Your task to perform on an android device: Open location settings Image 0: 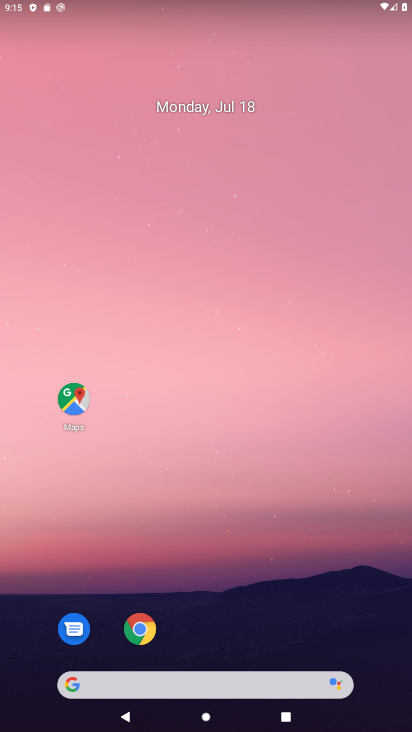
Step 0: drag from (211, 663) to (193, 30)
Your task to perform on an android device: Open location settings Image 1: 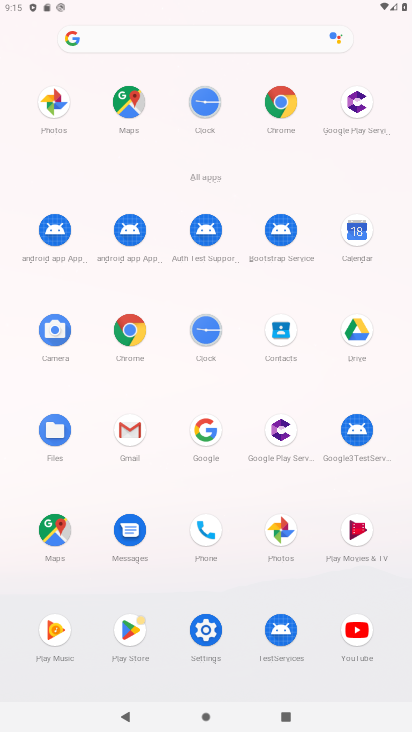
Step 1: click (213, 627)
Your task to perform on an android device: Open location settings Image 2: 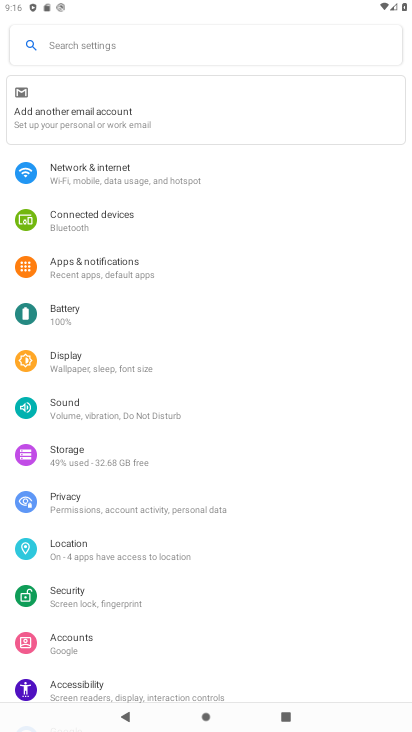
Step 2: click (90, 553)
Your task to perform on an android device: Open location settings Image 3: 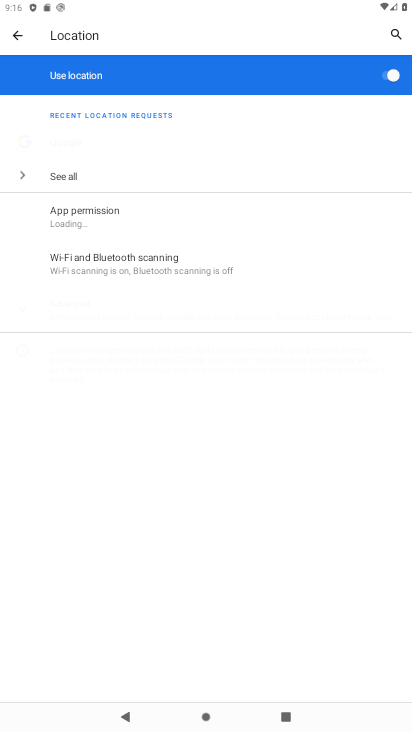
Step 3: task complete